Your task to perform on an android device: See recent photos Image 0: 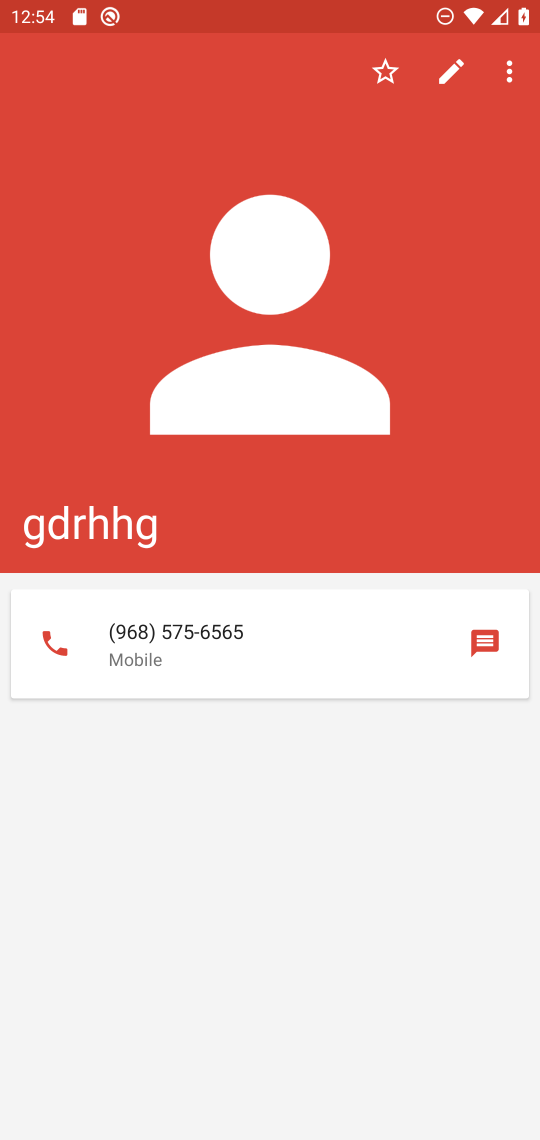
Step 0: press home button
Your task to perform on an android device: See recent photos Image 1: 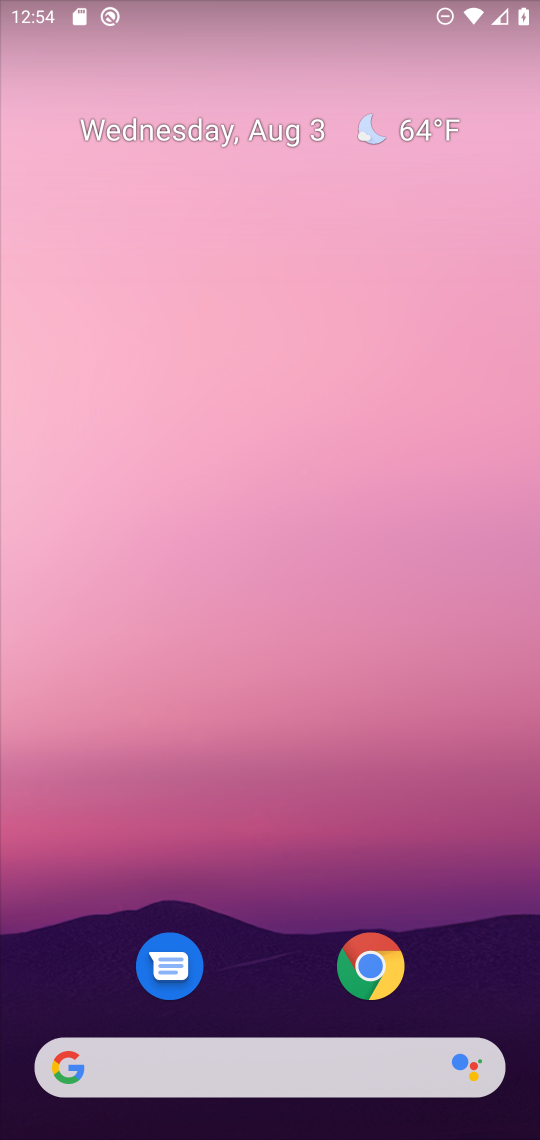
Step 1: drag from (255, 831) to (255, 283)
Your task to perform on an android device: See recent photos Image 2: 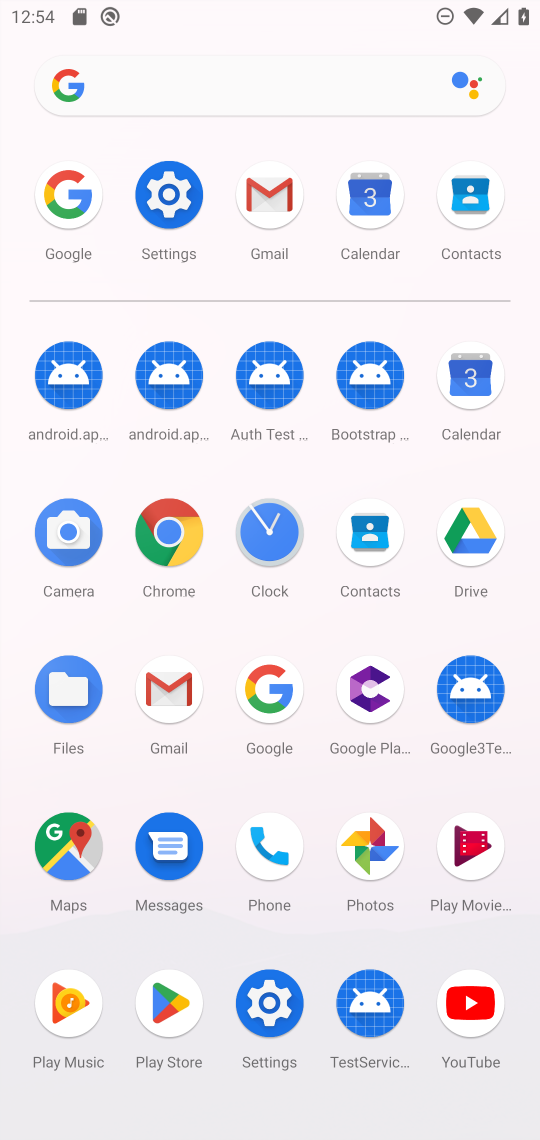
Step 2: click (380, 860)
Your task to perform on an android device: See recent photos Image 3: 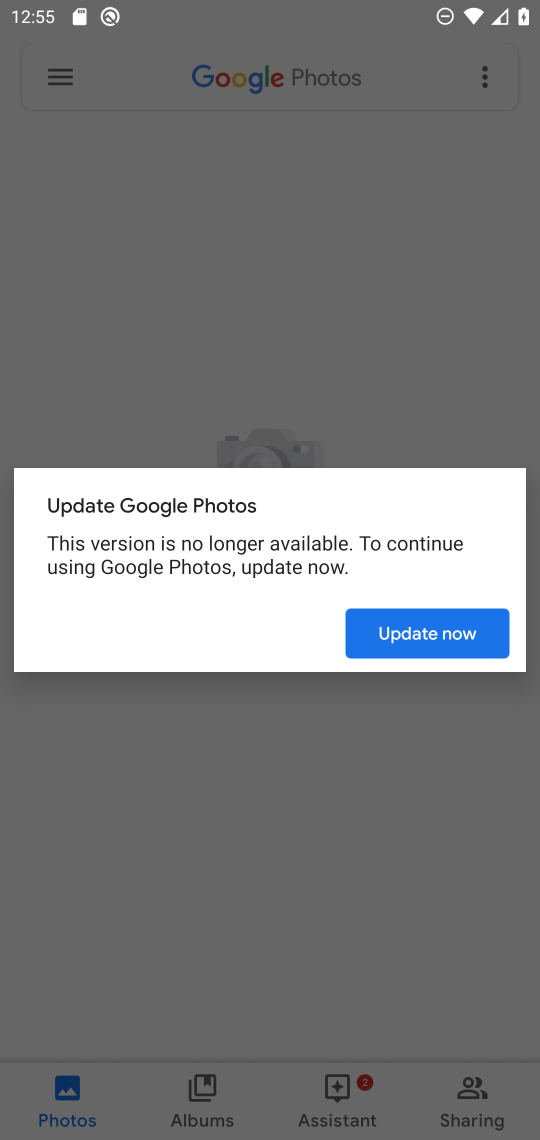
Step 3: click (416, 628)
Your task to perform on an android device: See recent photos Image 4: 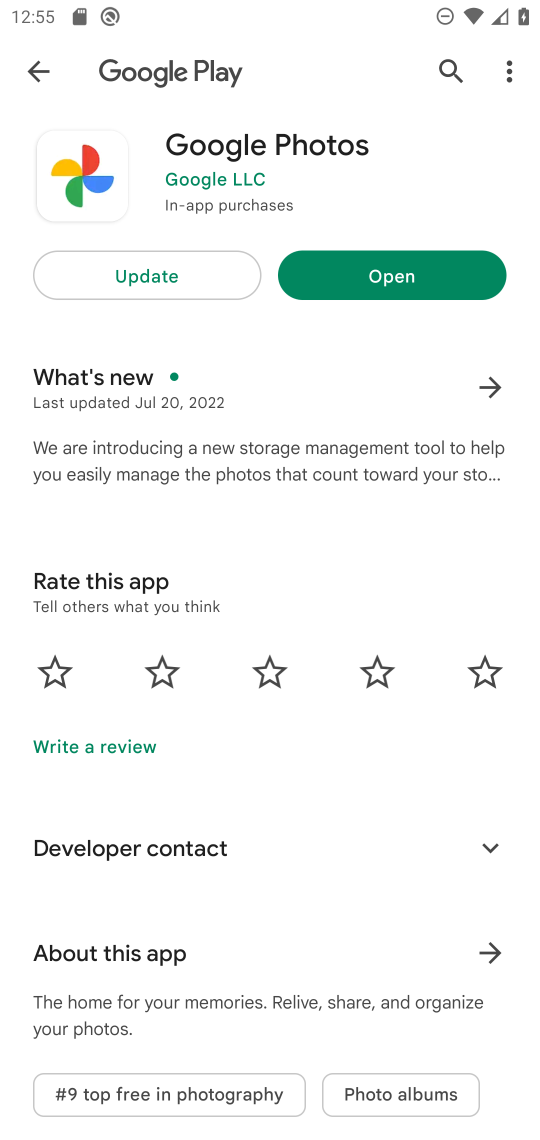
Step 4: click (383, 276)
Your task to perform on an android device: See recent photos Image 5: 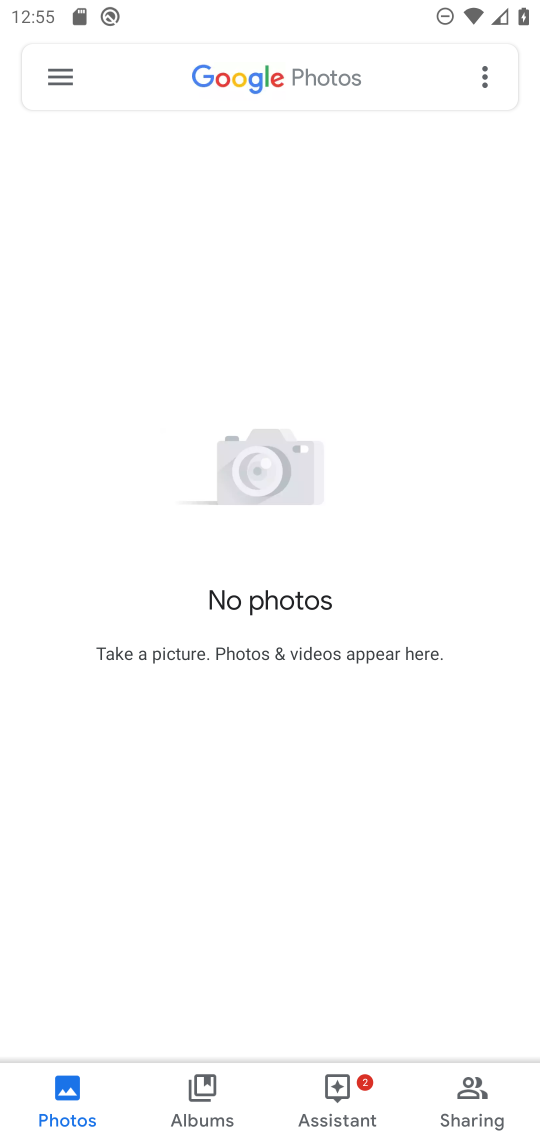
Step 5: task complete